Your task to perform on an android device: toggle location history Image 0: 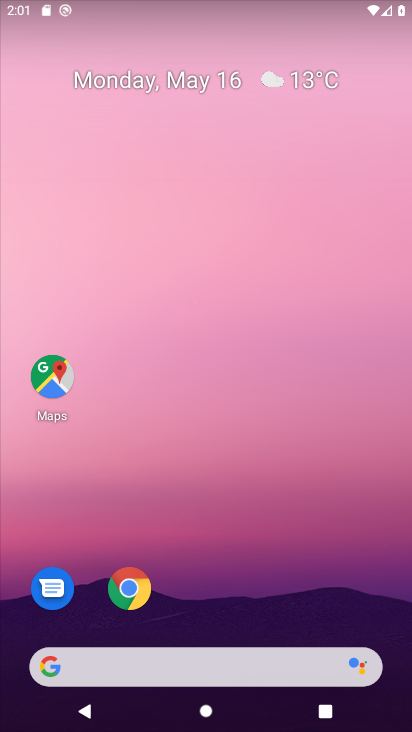
Step 0: drag from (114, 663) to (235, 19)
Your task to perform on an android device: toggle location history Image 1: 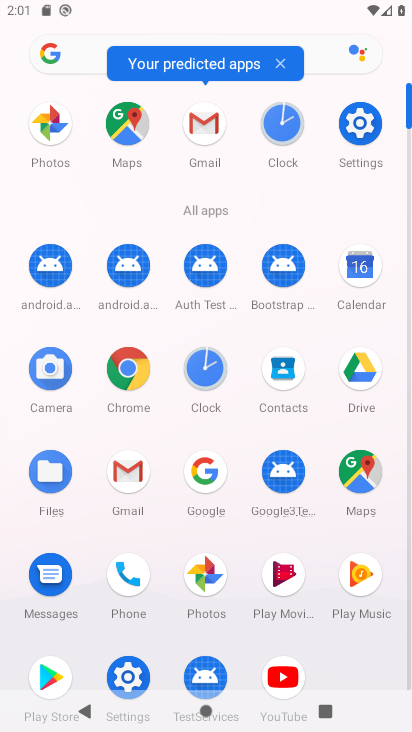
Step 1: click (355, 137)
Your task to perform on an android device: toggle location history Image 2: 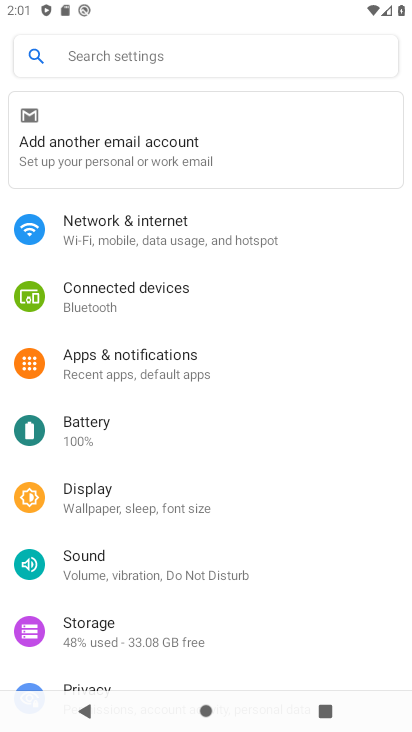
Step 2: drag from (157, 572) to (242, 322)
Your task to perform on an android device: toggle location history Image 3: 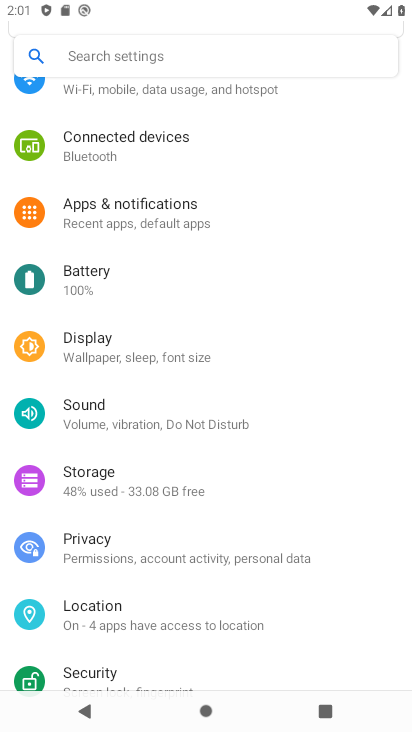
Step 3: click (119, 608)
Your task to perform on an android device: toggle location history Image 4: 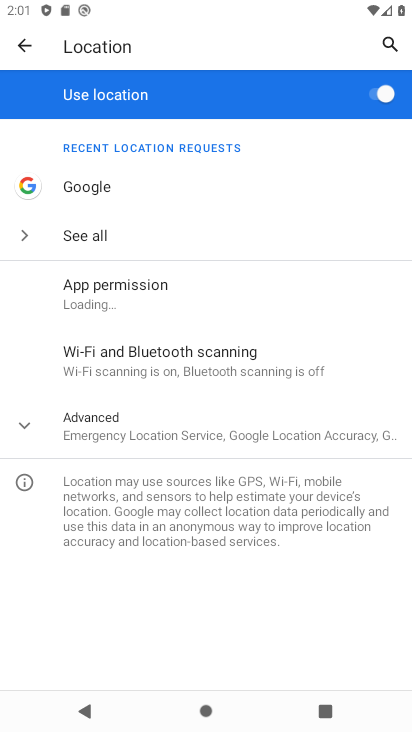
Step 4: click (240, 431)
Your task to perform on an android device: toggle location history Image 5: 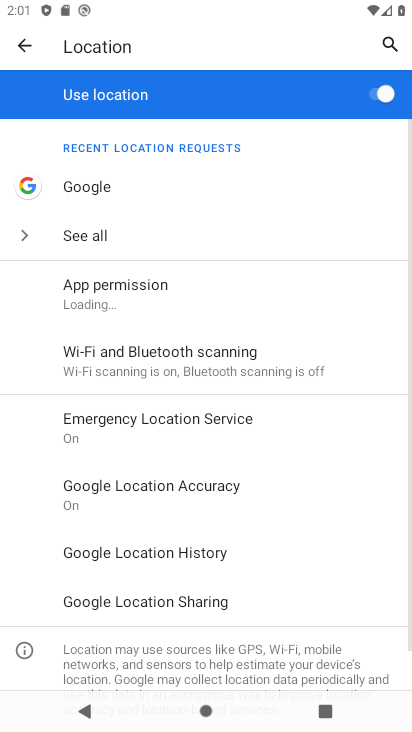
Step 5: click (202, 561)
Your task to perform on an android device: toggle location history Image 6: 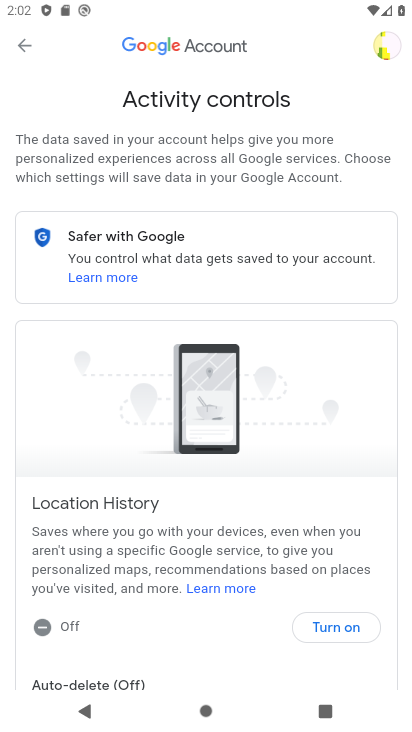
Step 6: click (328, 620)
Your task to perform on an android device: toggle location history Image 7: 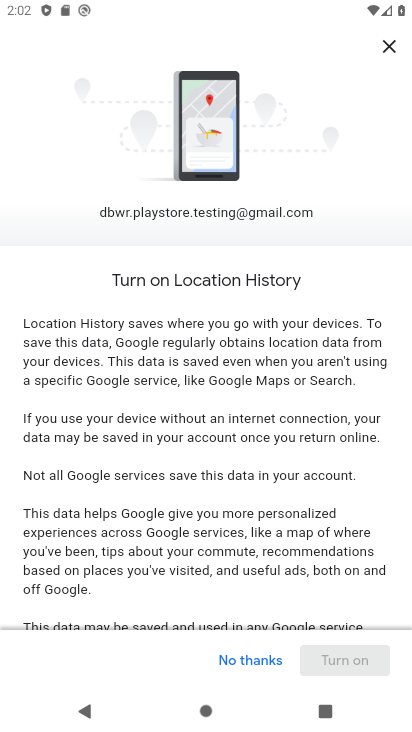
Step 7: drag from (299, 618) to (296, 88)
Your task to perform on an android device: toggle location history Image 8: 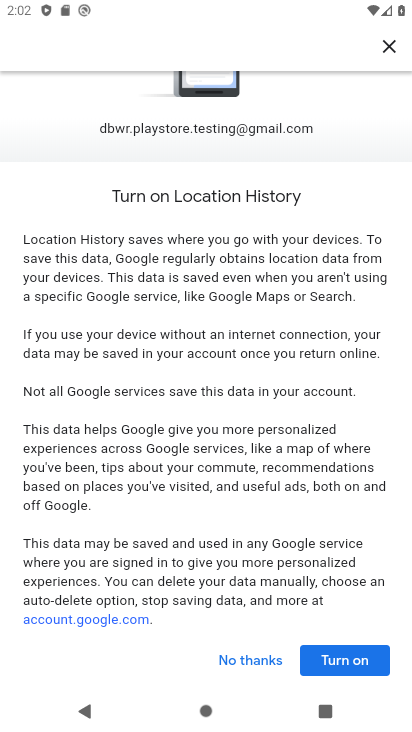
Step 8: click (342, 669)
Your task to perform on an android device: toggle location history Image 9: 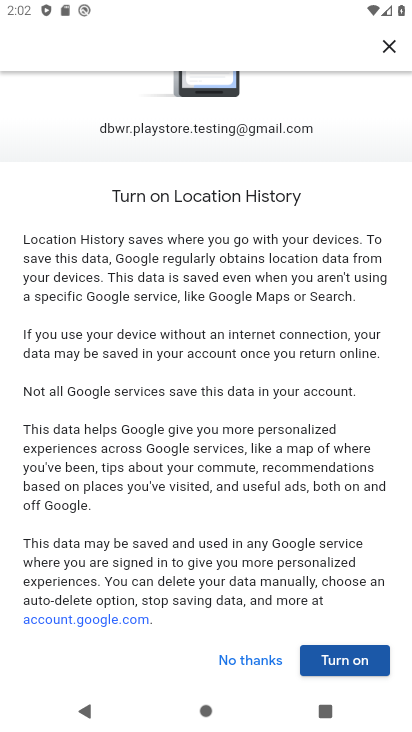
Step 9: click (342, 669)
Your task to perform on an android device: toggle location history Image 10: 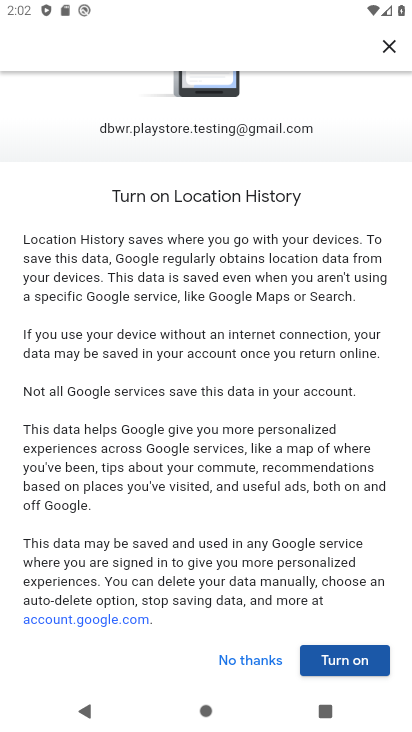
Step 10: click (342, 669)
Your task to perform on an android device: toggle location history Image 11: 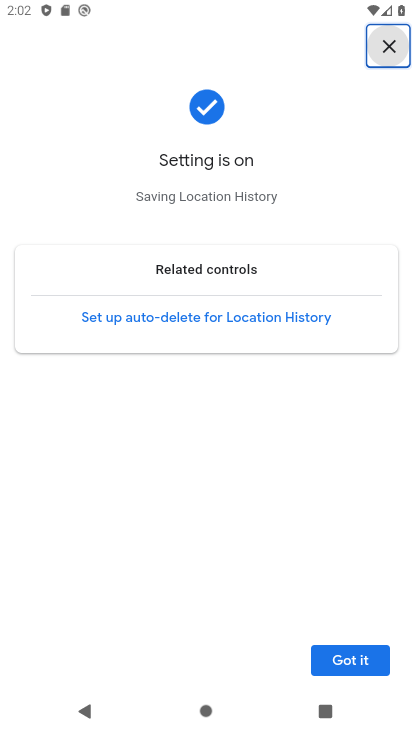
Step 11: task complete